Your task to perform on an android device: empty trash in the gmail app Image 0: 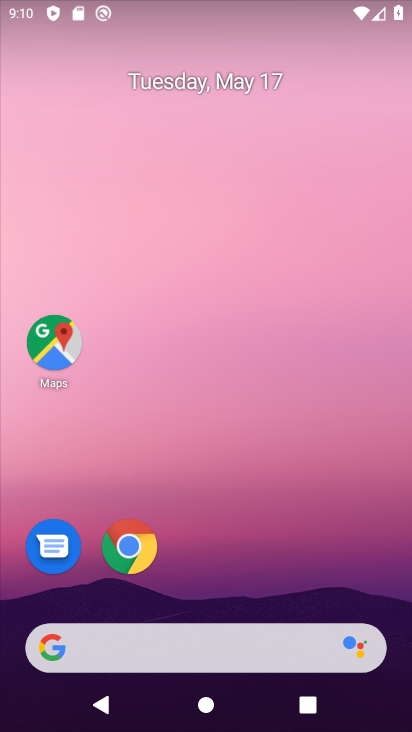
Step 0: drag from (252, 482) to (204, 13)
Your task to perform on an android device: empty trash in the gmail app Image 1: 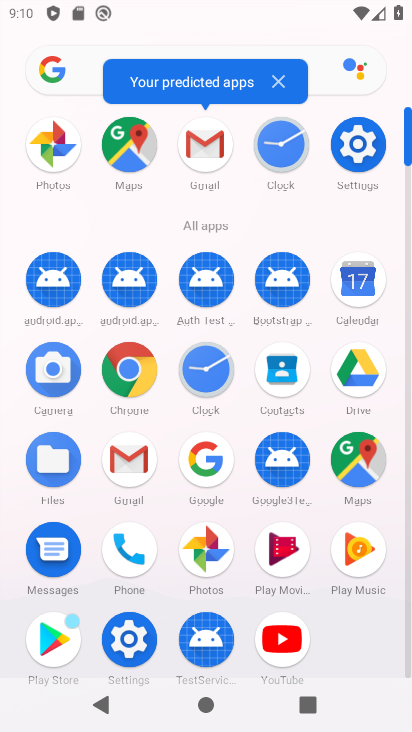
Step 1: click (204, 149)
Your task to perform on an android device: empty trash in the gmail app Image 2: 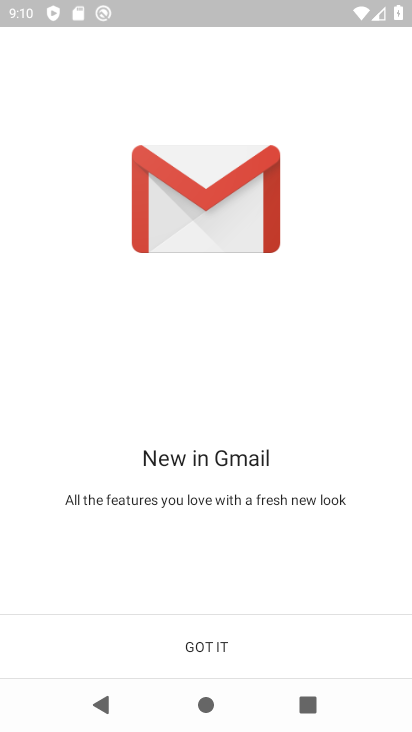
Step 2: click (195, 633)
Your task to perform on an android device: empty trash in the gmail app Image 3: 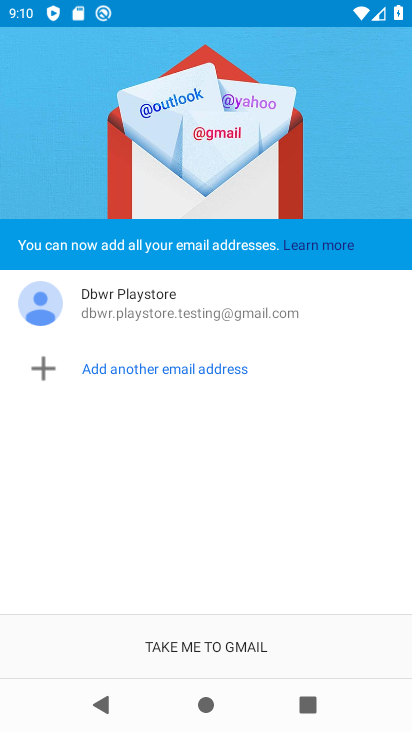
Step 3: click (217, 643)
Your task to perform on an android device: empty trash in the gmail app Image 4: 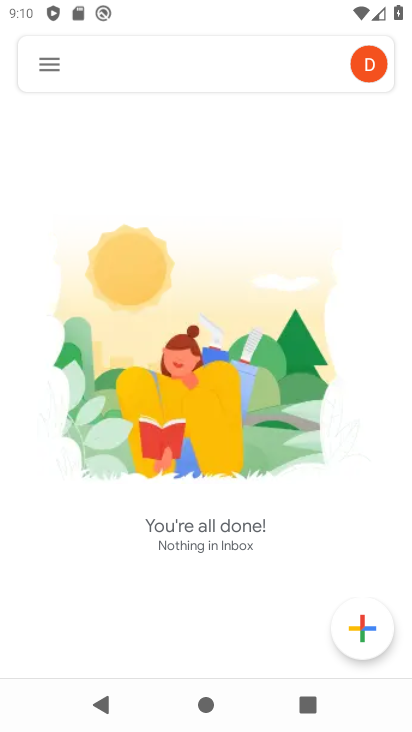
Step 4: click (47, 70)
Your task to perform on an android device: empty trash in the gmail app Image 5: 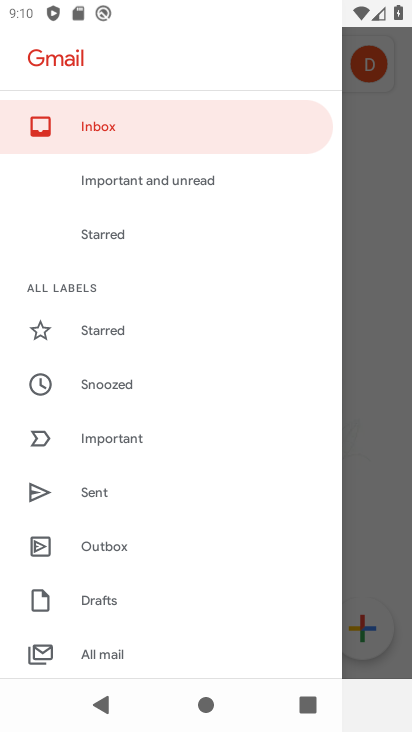
Step 5: drag from (157, 566) to (161, 304)
Your task to perform on an android device: empty trash in the gmail app Image 6: 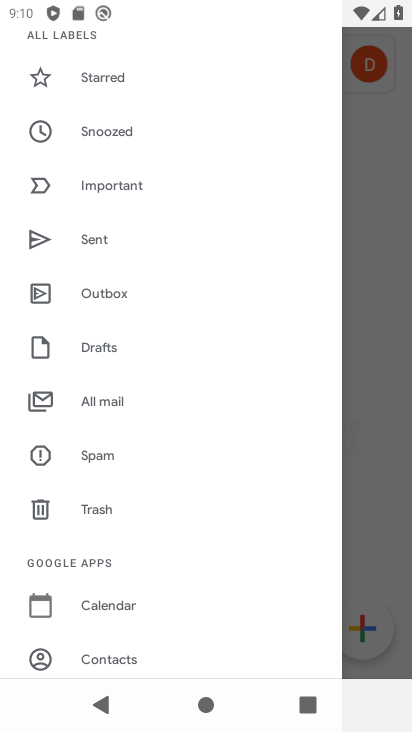
Step 6: click (96, 508)
Your task to perform on an android device: empty trash in the gmail app Image 7: 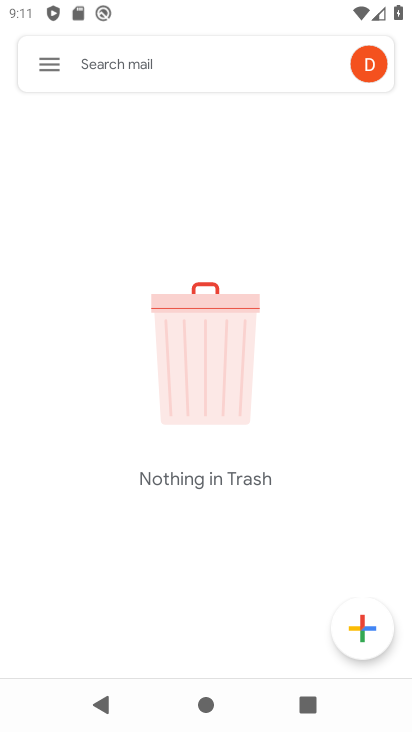
Step 7: task complete